Your task to perform on an android device: Clear all items from cart on bestbuy. Add bose soundlink to the cart on bestbuy, then select checkout. Image 0: 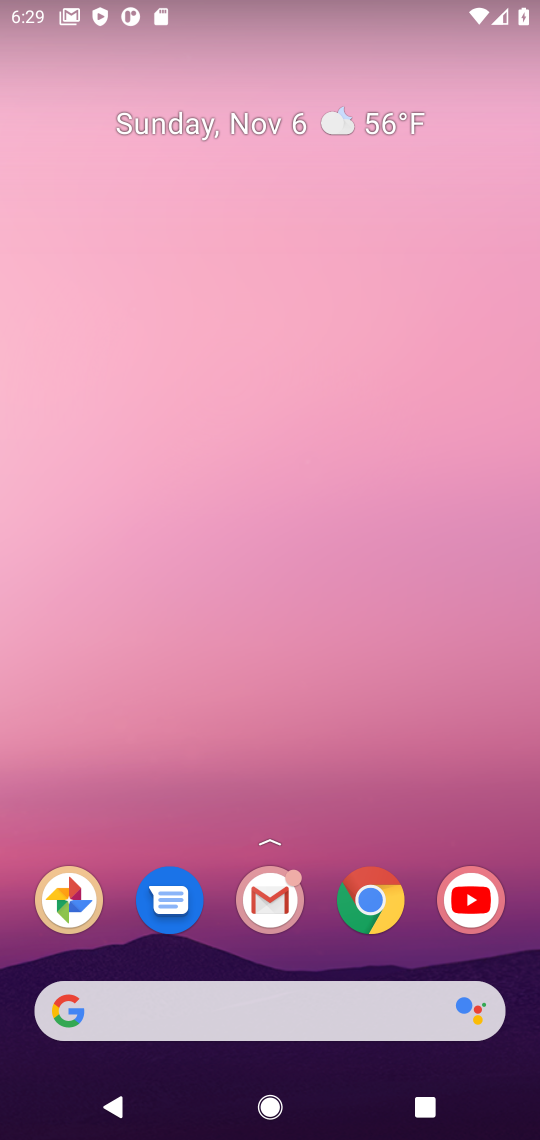
Step 0: click (374, 151)
Your task to perform on an android device: Clear all items from cart on bestbuy. Add bose soundlink to the cart on bestbuy, then select checkout. Image 1: 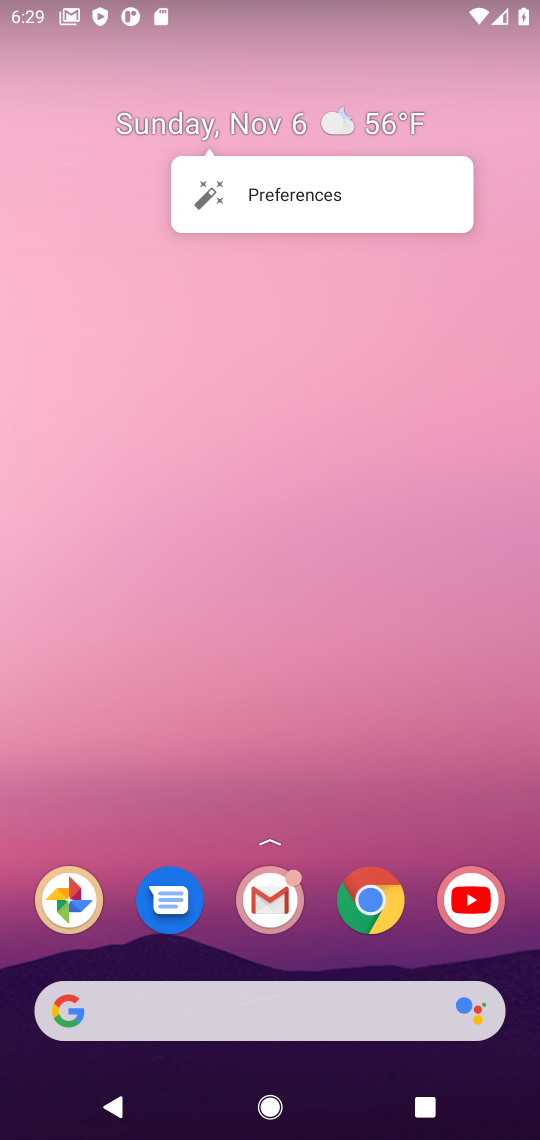
Step 1: click (361, 815)
Your task to perform on an android device: Clear all items from cart on bestbuy. Add bose soundlink to the cart on bestbuy, then select checkout. Image 2: 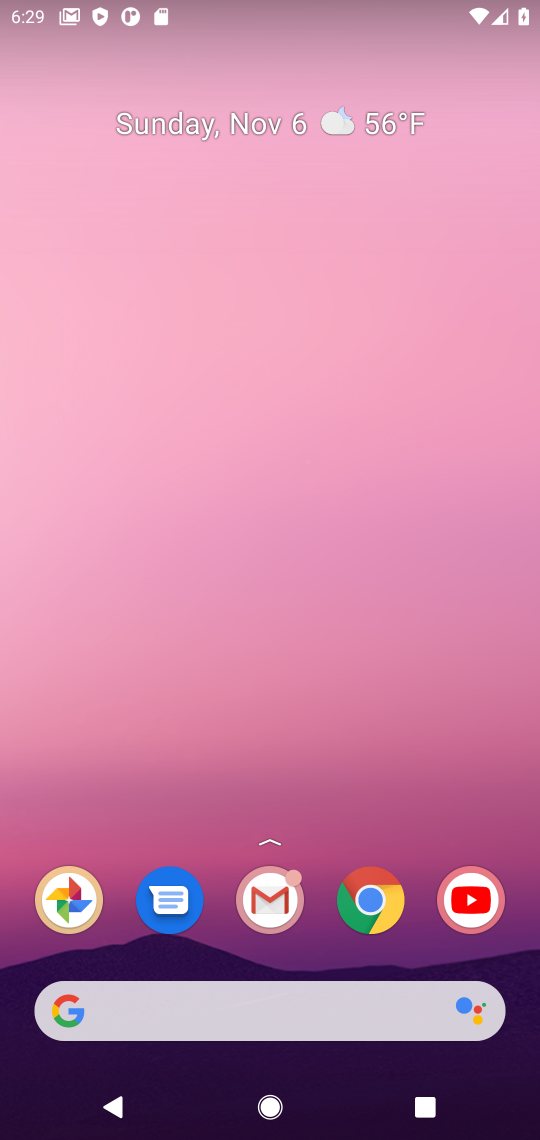
Step 2: drag from (300, 909) to (260, 110)
Your task to perform on an android device: Clear all items from cart on bestbuy. Add bose soundlink to the cart on bestbuy, then select checkout. Image 3: 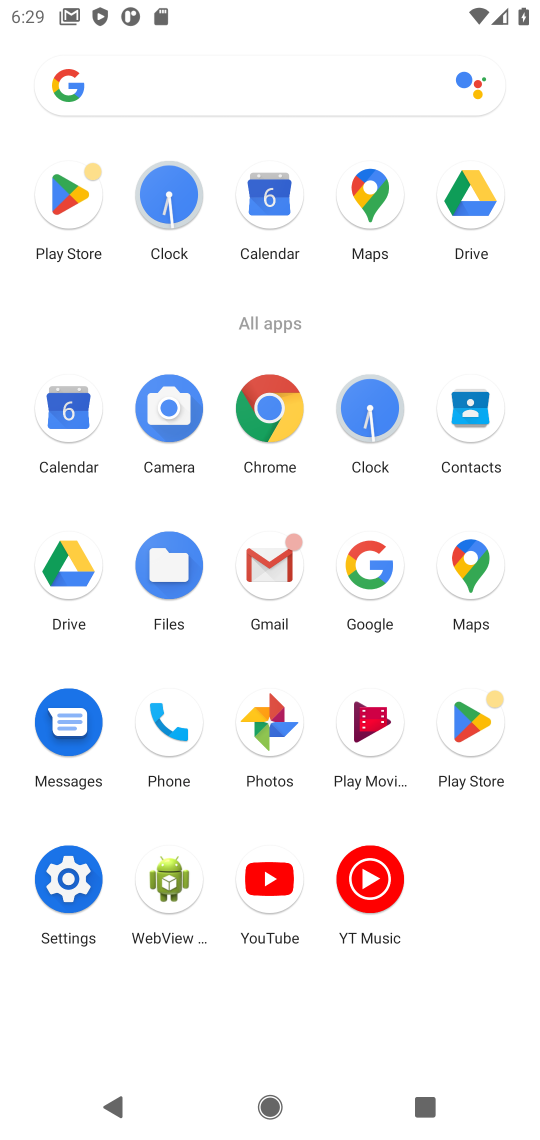
Step 3: click (266, 421)
Your task to perform on an android device: Clear all items from cart on bestbuy. Add bose soundlink to the cart on bestbuy, then select checkout. Image 4: 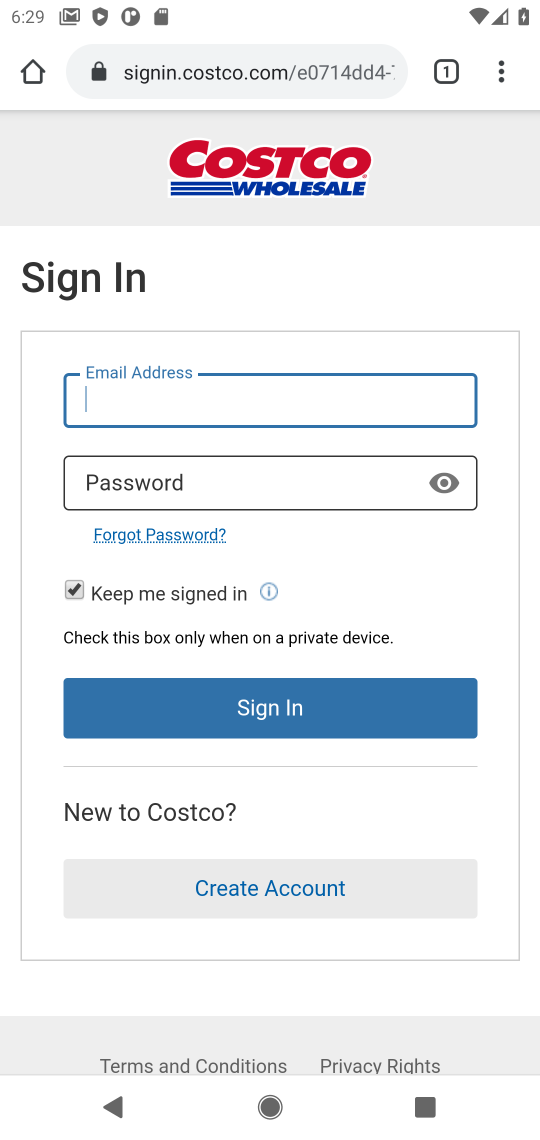
Step 4: click (269, 64)
Your task to perform on an android device: Clear all items from cart on bestbuy. Add bose soundlink to the cart on bestbuy, then select checkout. Image 5: 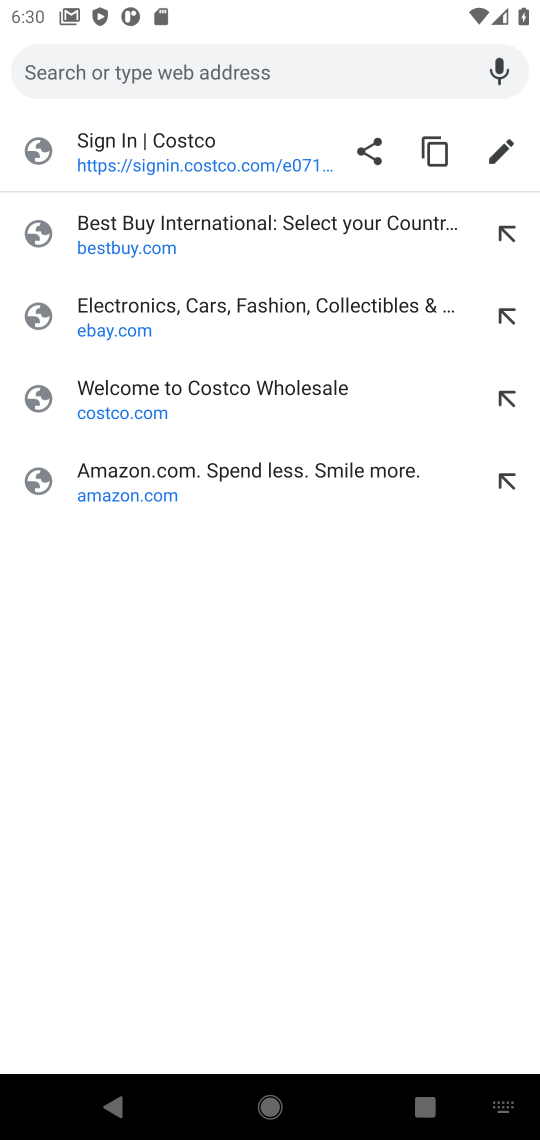
Step 5: type "bestbuy.com"
Your task to perform on an android device: Clear all items from cart on bestbuy. Add bose soundlink to the cart on bestbuy, then select checkout. Image 6: 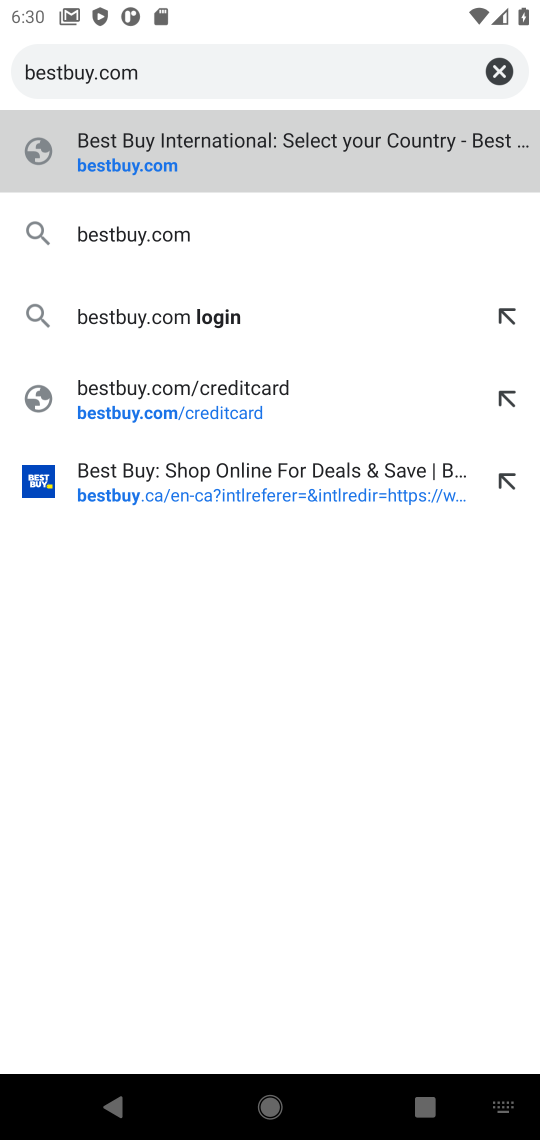
Step 6: press enter
Your task to perform on an android device: Clear all items from cart on bestbuy. Add bose soundlink to the cart on bestbuy, then select checkout. Image 7: 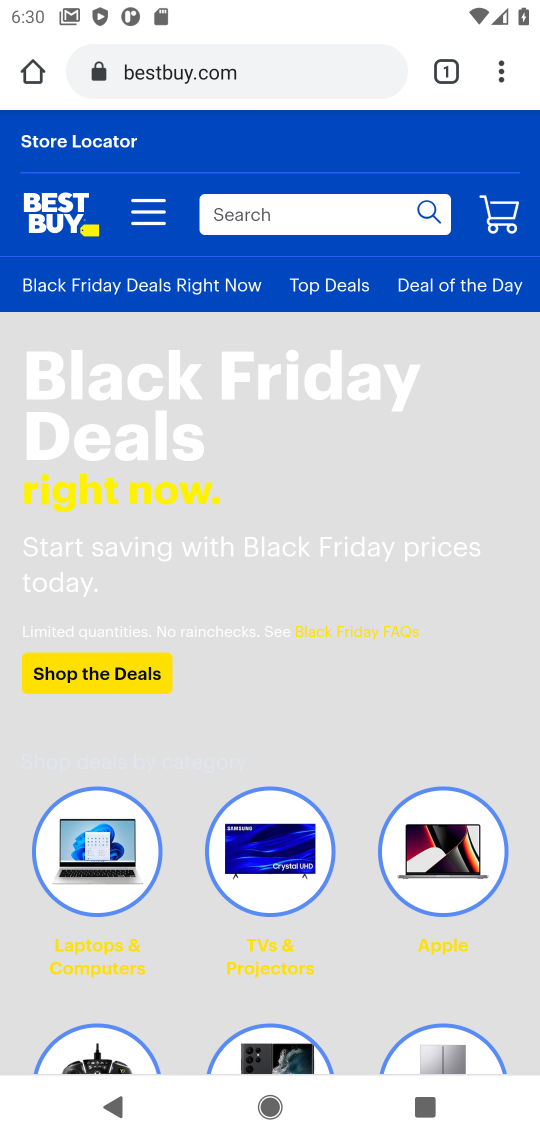
Step 7: click (500, 222)
Your task to perform on an android device: Clear all items from cart on bestbuy. Add bose soundlink to the cart on bestbuy, then select checkout. Image 8: 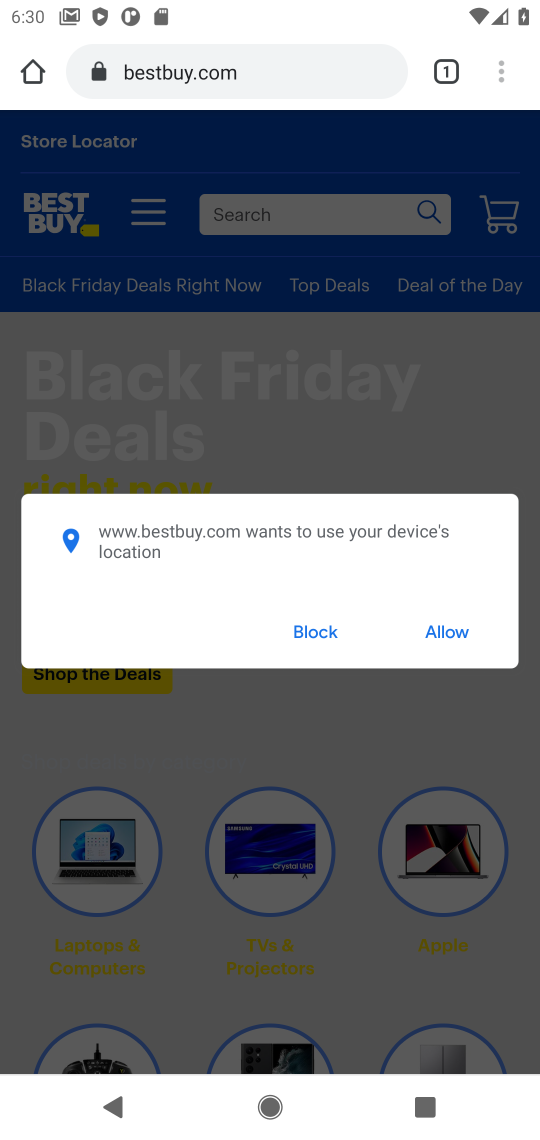
Step 8: click (316, 628)
Your task to perform on an android device: Clear all items from cart on bestbuy. Add bose soundlink to the cart on bestbuy, then select checkout. Image 9: 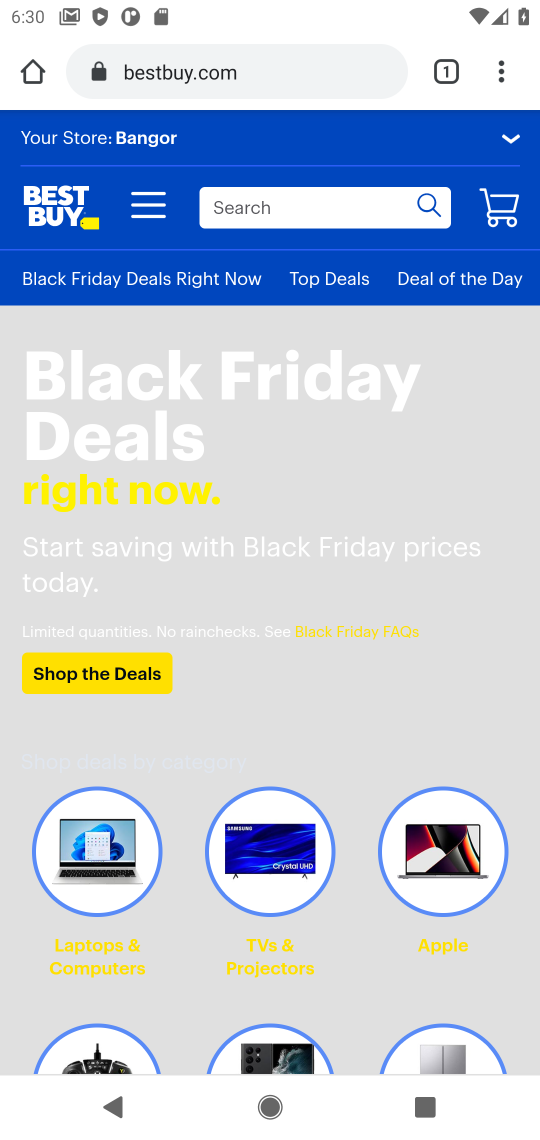
Step 9: click (502, 201)
Your task to perform on an android device: Clear all items from cart on bestbuy. Add bose soundlink to the cart on bestbuy, then select checkout. Image 10: 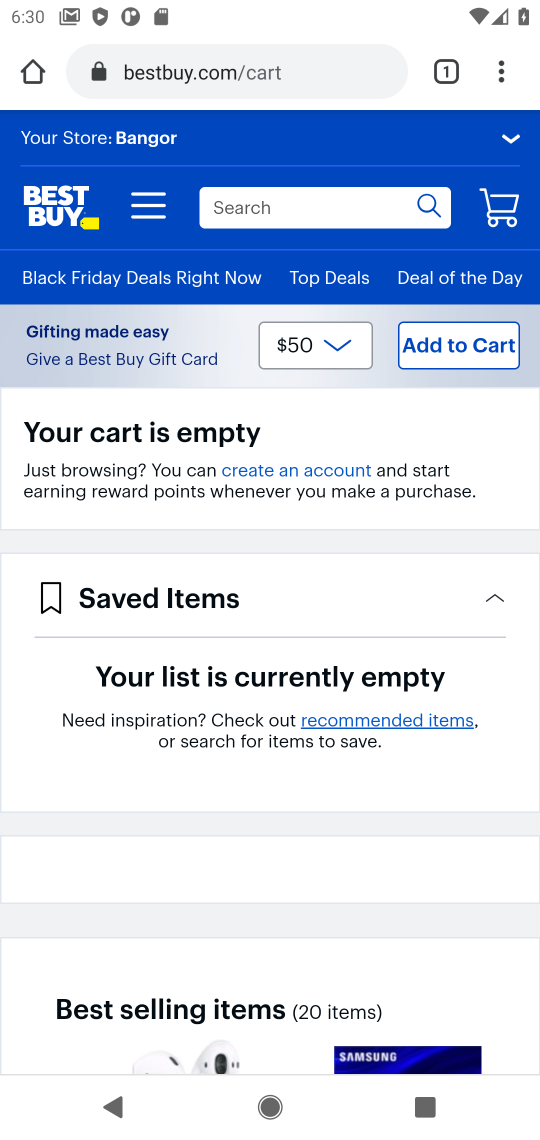
Step 10: click (318, 204)
Your task to perform on an android device: Clear all items from cart on bestbuy. Add bose soundlink to the cart on bestbuy, then select checkout. Image 11: 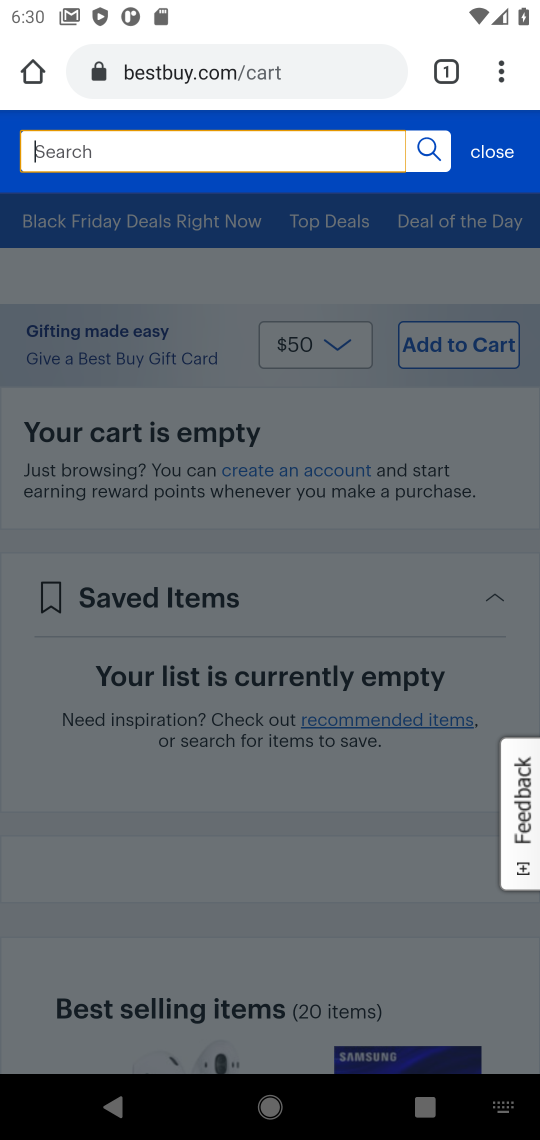
Step 11: type "bose soundlinjk"
Your task to perform on an android device: Clear all items from cart on bestbuy. Add bose soundlink to the cart on bestbuy, then select checkout. Image 12: 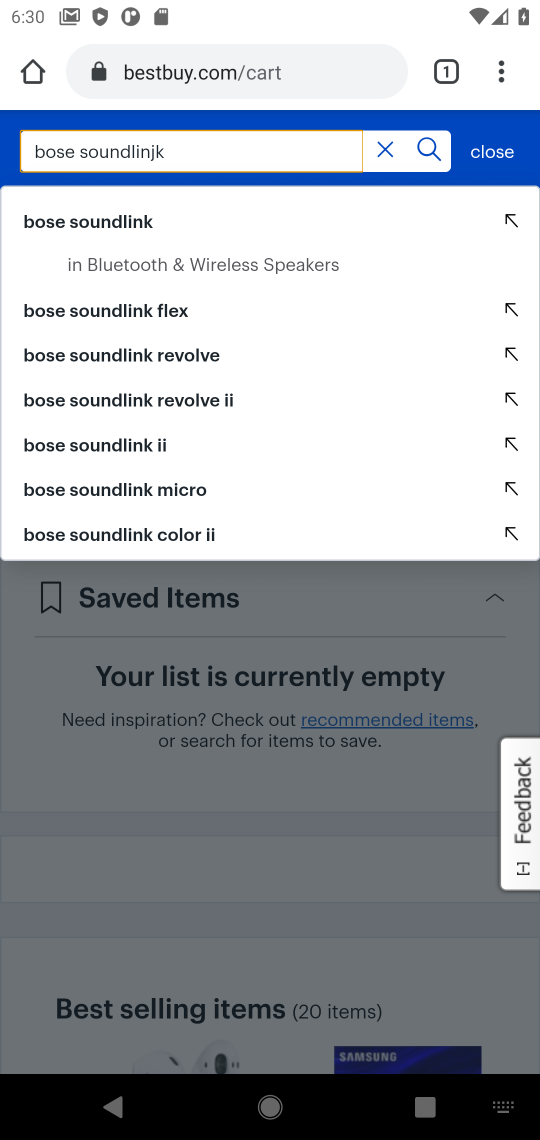
Step 12: press enter
Your task to perform on an android device: Clear all items from cart on bestbuy. Add bose soundlink to the cart on bestbuy, then select checkout. Image 13: 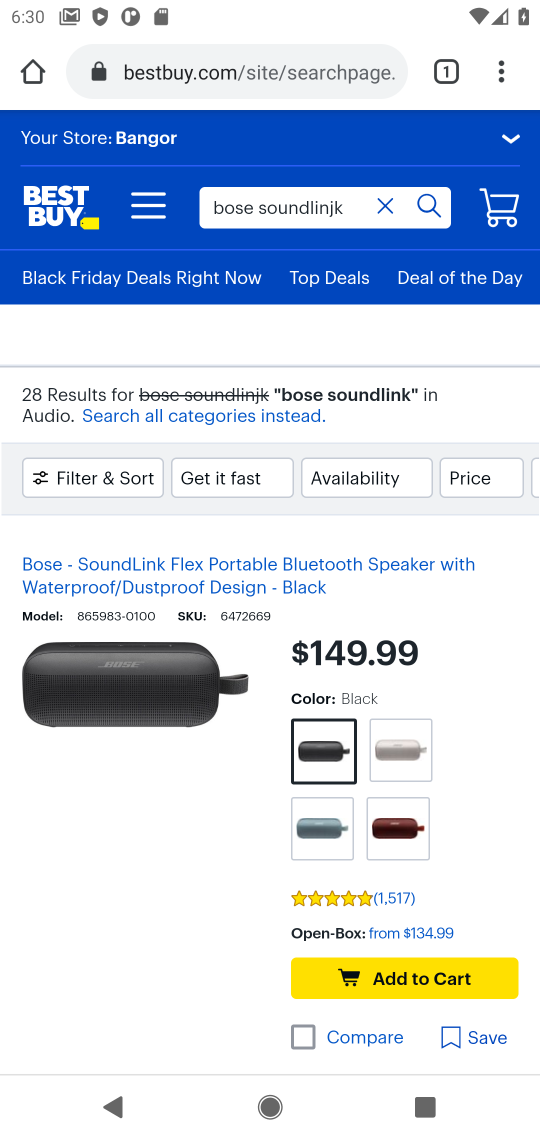
Step 13: click (453, 1034)
Your task to perform on an android device: Clear all items from cart on bestbuy. Add bose soundlink to the cart on bestbuy, then select checkout. Image 14: 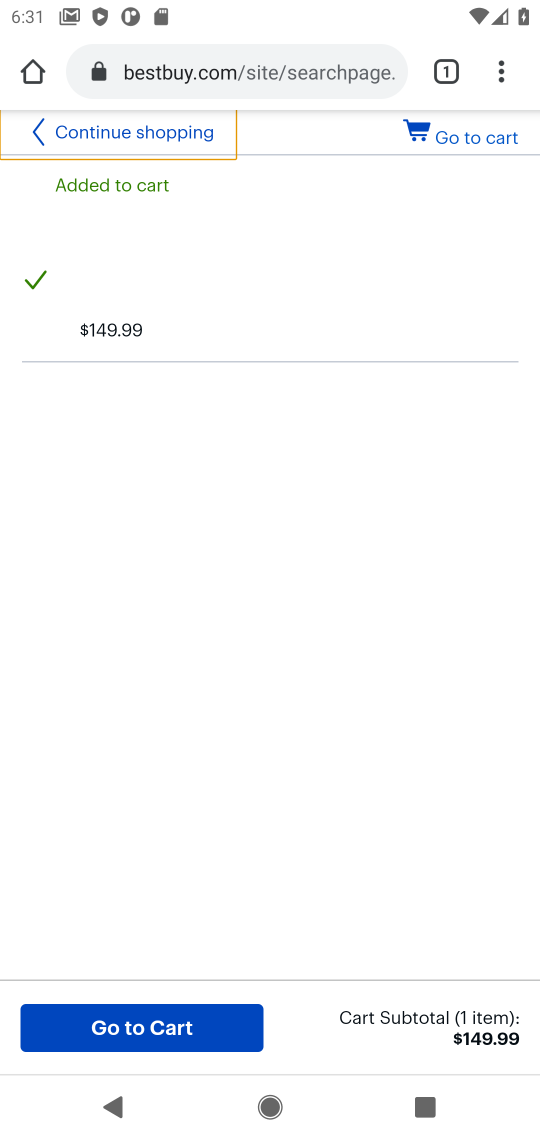
Step 14: click (176, 999)
Your task to perform on an android device: Clear all items from cart on bestbuy. Add bose soundlink to the cart on bestbuy, then select checkout. Image 15: 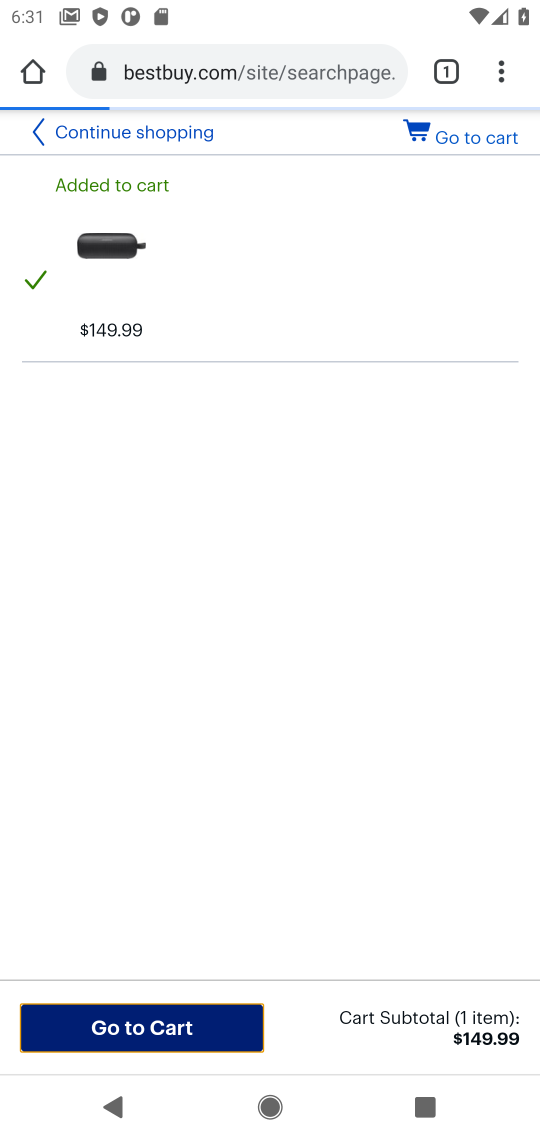
Step 15: click (176, 1017)
Your task to perform on an android device: Clear all items from cart on bestbuy. Add bose soundlink to the cart on bestbuy, then select checkout. Image 16: 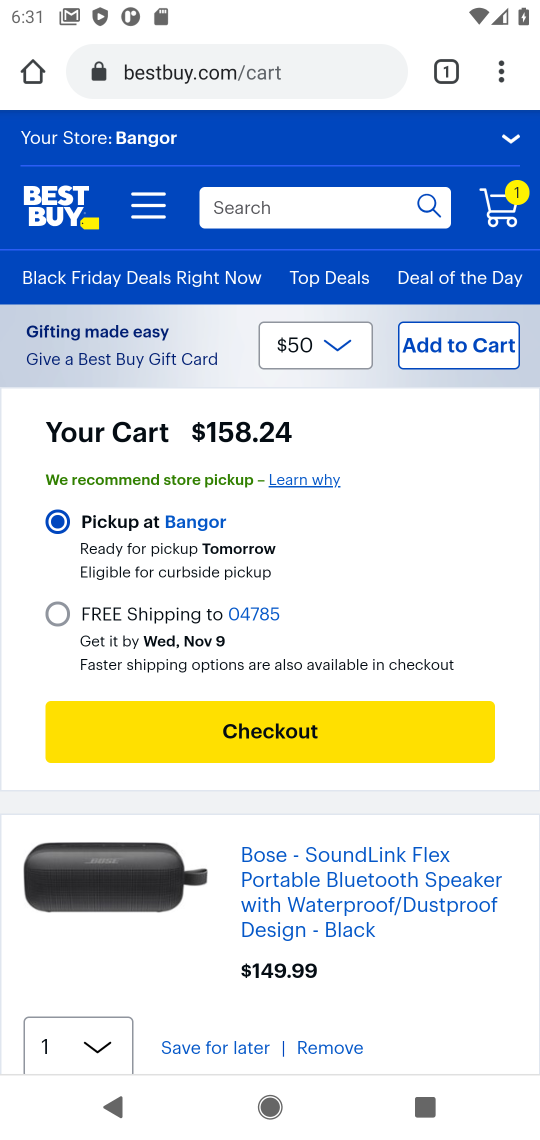
Step 16: click (270, 734)
Your task to perform on an android device: Clear all items from cart on bestbuy. Add bose soundlink to the cart on bestbuy, then select checkout. Image 17: 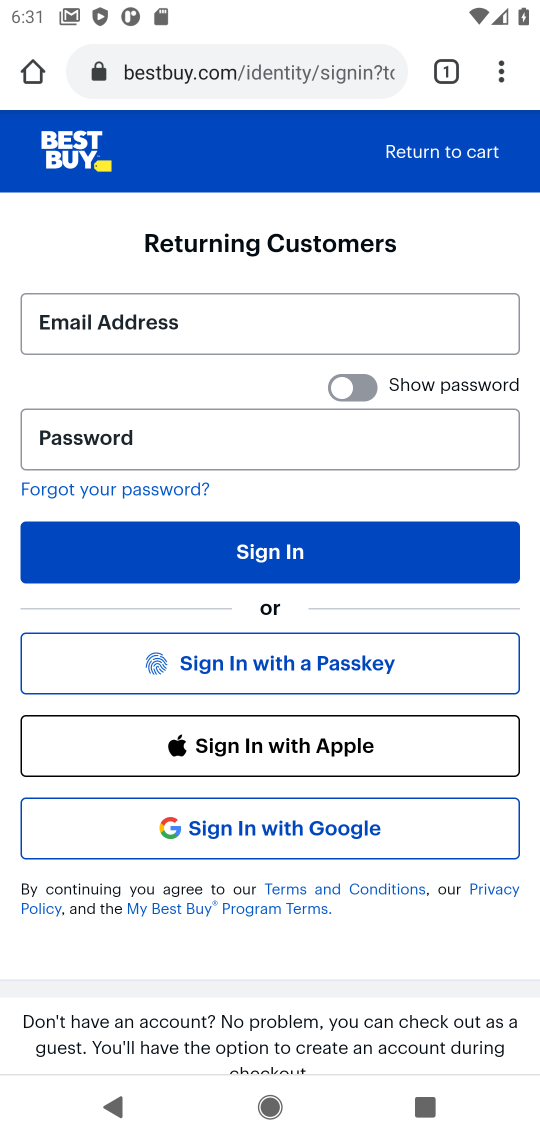
Step 17: task complete